Your task to perform on an android device: Go to Google maps Image 0: 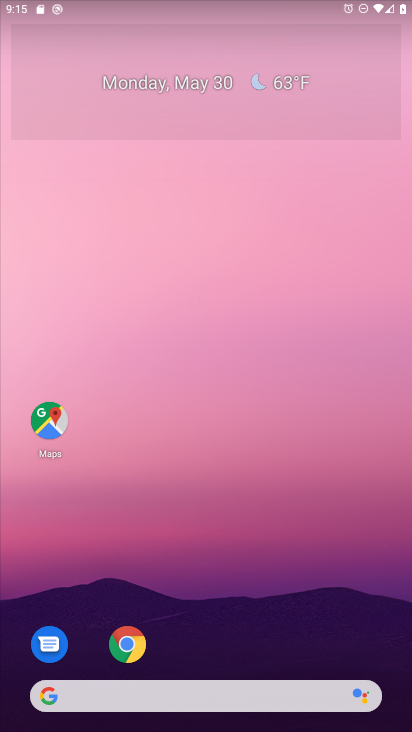
Step 0: click (52, 419)
Your task to perform on an android device: Go to Google maps Image 1: 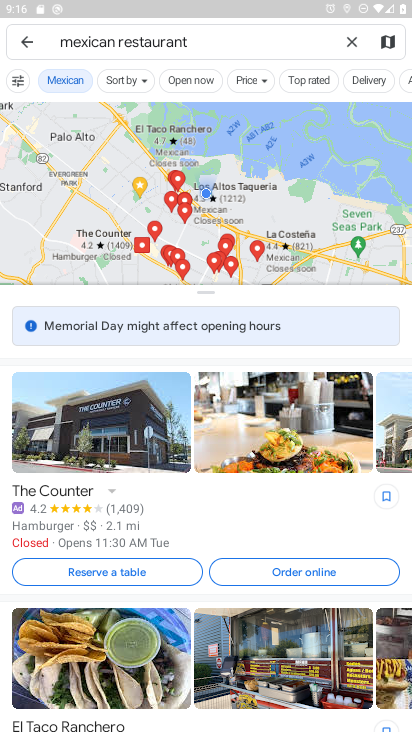
Step 1: task complete